Your task to perform on an android device: manage bookmarks in the chrome app Image 0: 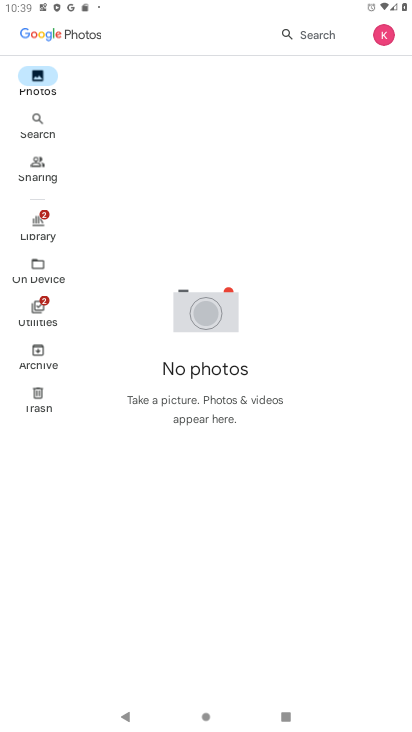
Step 0: press home button
Your task to perform on an android device: manage bookmarks in the chrome app Image 1: 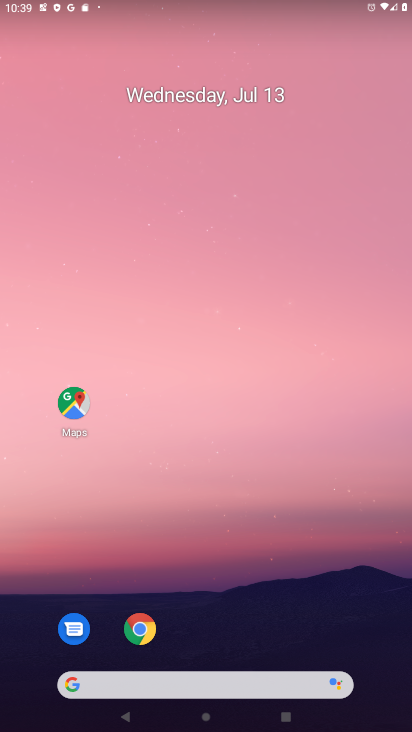
Step 1: click (141, 634)
Your task to perform on an android device: manage bookmarks in the chrome app Image 2: 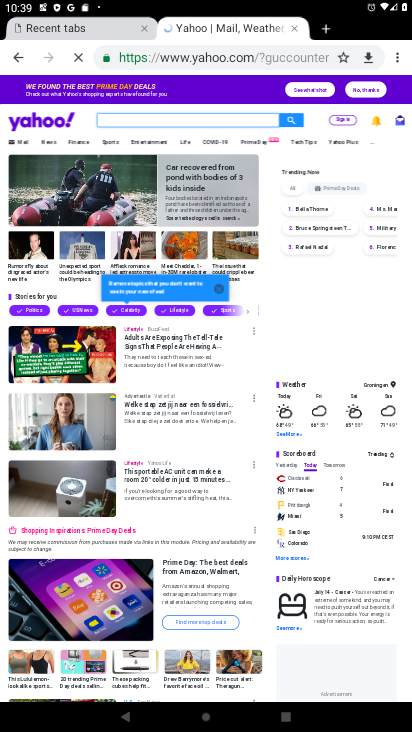
Step 2: click (399, 58)
Your task to perform on an android device: manage bookmarks in the chrome app Image 3: 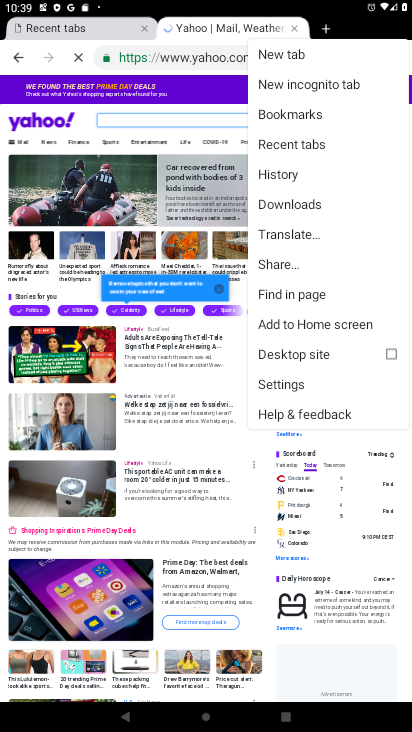
Step 3: click (283, 378)
Your task to perform on an android device: manage bookmarks in the chrome app Image 4: 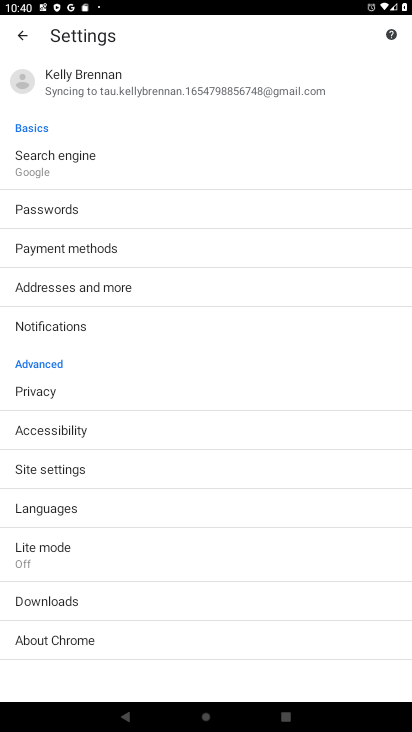
Step 4: click (34, 36)
Your task to perform on an android device: manage bookmarks in the chrome app Image 5: 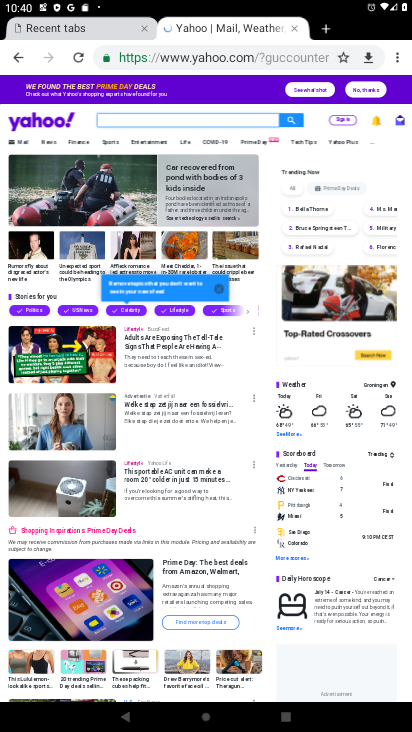
Step 5: click (395, 58)
Your task to perform on an android device: manage bookmarks in the chrome app Image 6: 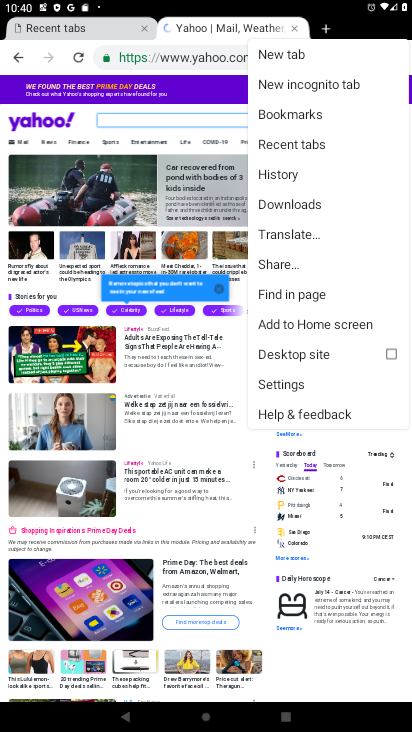
Step 6: click (318, 103)
Your task to perform on an android device: manage bookmarks in the chrome app Image 7: 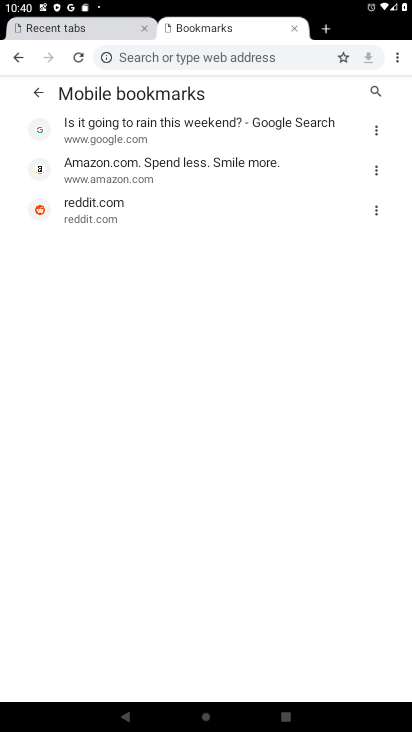
Step 7: task complete